Your task to perform on an android device: change the clock display to digital Image 0: 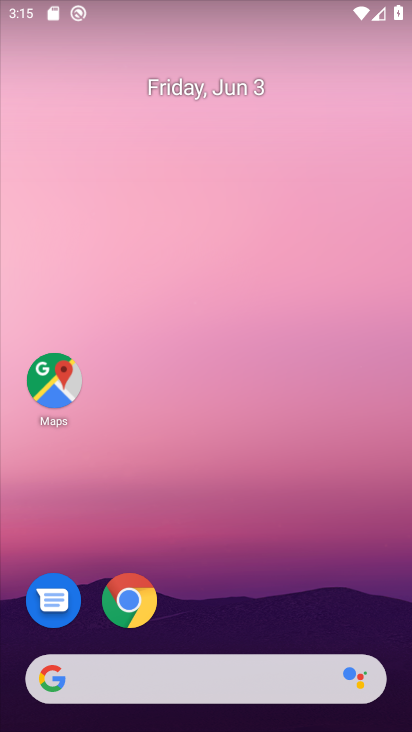
Step 0: drag from (283, 565) to (295, 102)
Your task to perform on an android device: change the clock display to digital Image 1: 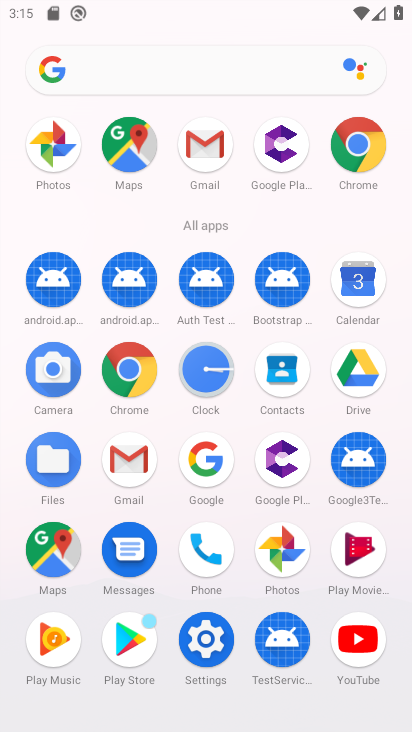
Step 1: click (215, 367)
Your task to perform on an android device: change the clock display to digital Image 2: 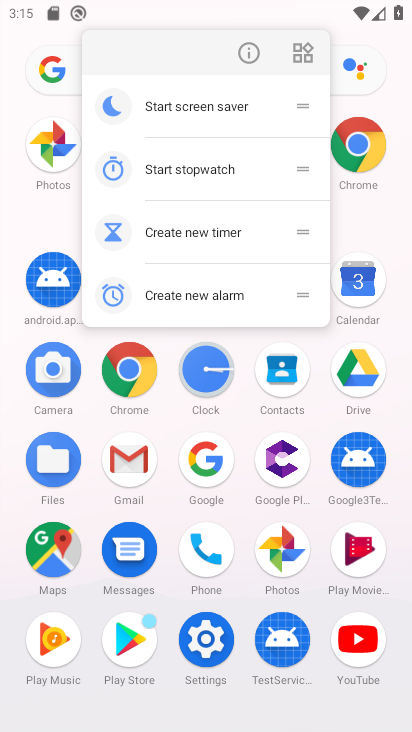
Step 2: click (207, 367)
Your task to perform on an android device: change the clock display to digital Image 3: 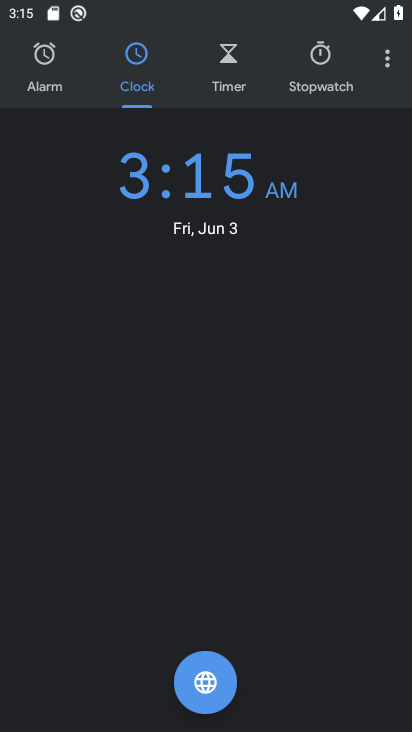
Step 3: task complete